Your task to perform on an android device: turn off notifications in google photos Image 0: 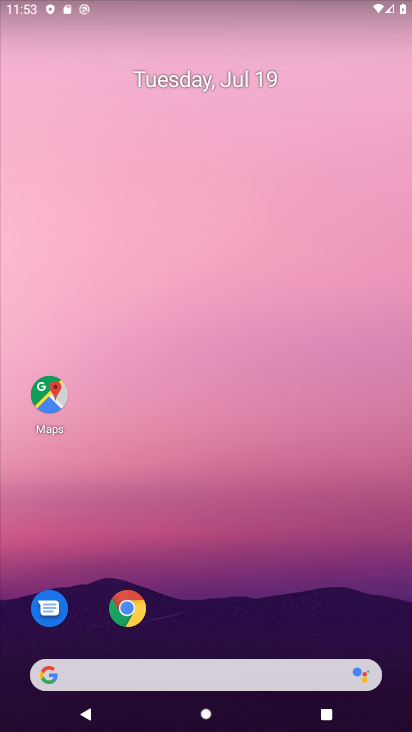
Step 0: drag from (193, 660) to (273, 96)
Your task to perform on an android device: turn off notifications in google photos Image 1: 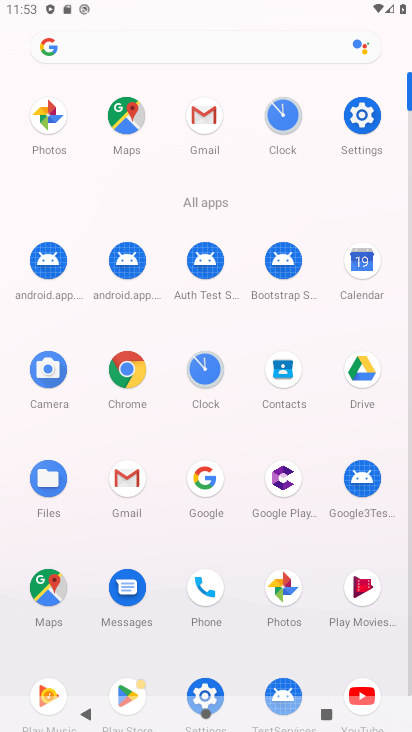
Step 1: click (284, 587)
Your task to perform on an android device: turn off notifications in google photos Image 2: 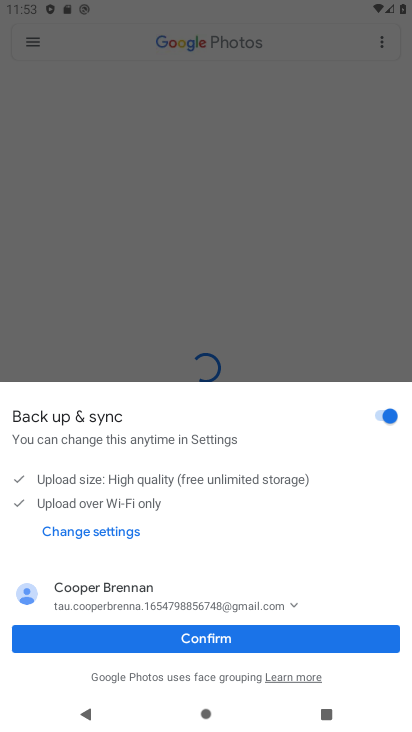
Step 2: click (271, 645)
Your task to perform on an android device: turn off notifications in google photos Image 3: 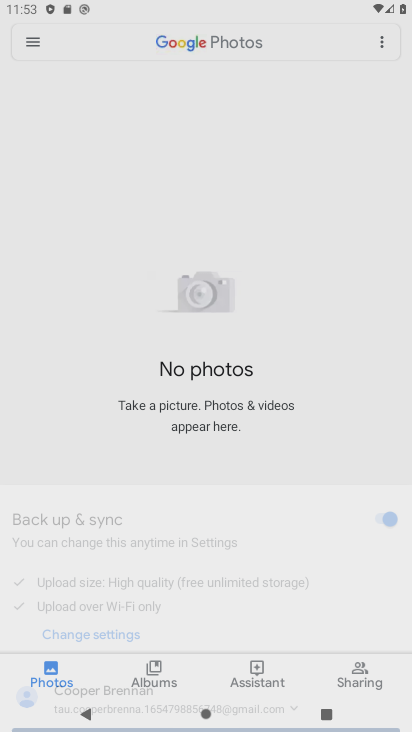
Step 3: click (215, 644)
Your task to perform on an android device: turn off notifications in google photos Image 4: 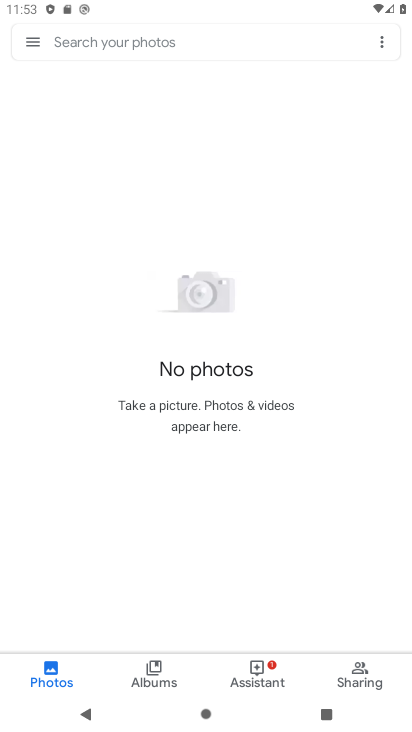
Step 4: click (33, 39)
Your task to perform on an android device: turn off notifications in google photos Image 5: 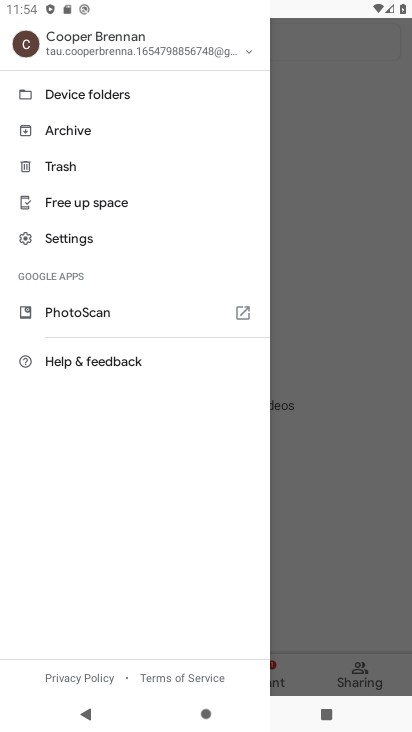
Step 5: click (63, 236)
Your task to perform on an android device: turn off notifications in google photos Image 6: 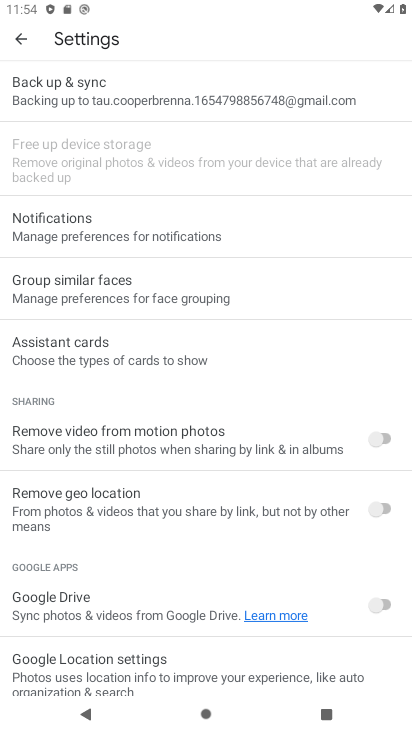
Step 6: click (90, 232)
Your task to perform on an android device: turn off notifications in google photos Image 7: 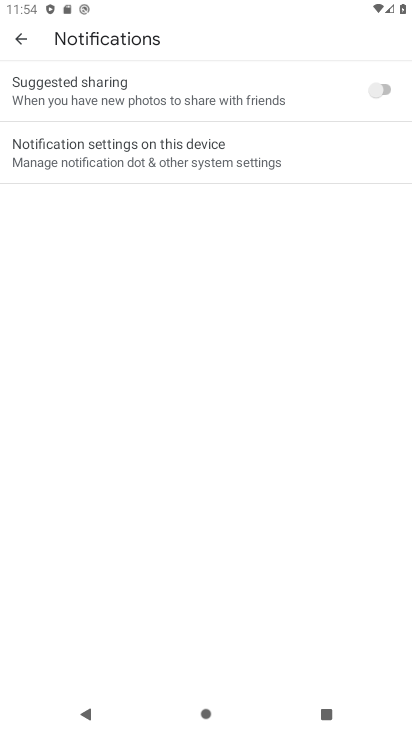
Step 7: click (124, 160)
Your task to perform on an android device: turn off notifications in google photos Image 8: 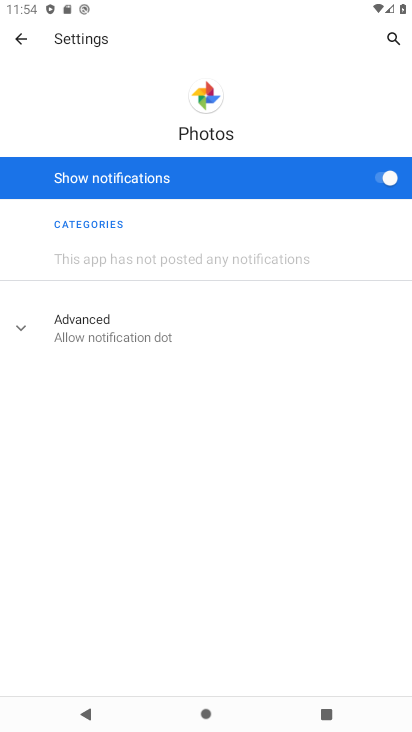
Step 8: click (385, 180)
Your task to perform on an android device: turn off notifications in google photos Image 9: 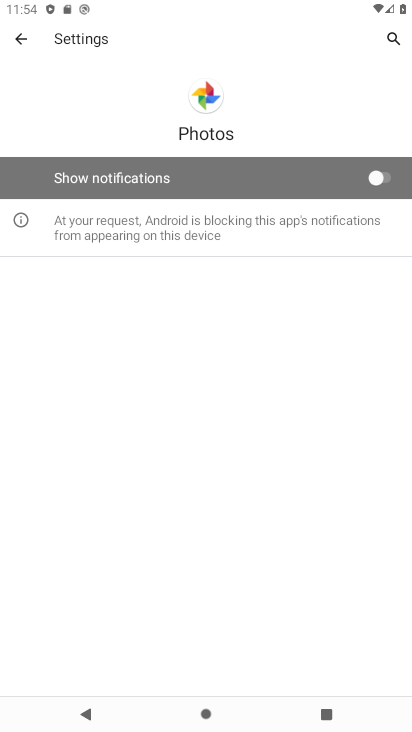
Step 9: task complete